Your task to perform on an android device: View the shopping cart on newegg. Add jbl charge 4 to the cart on newegg, then select checkout. Image 0: 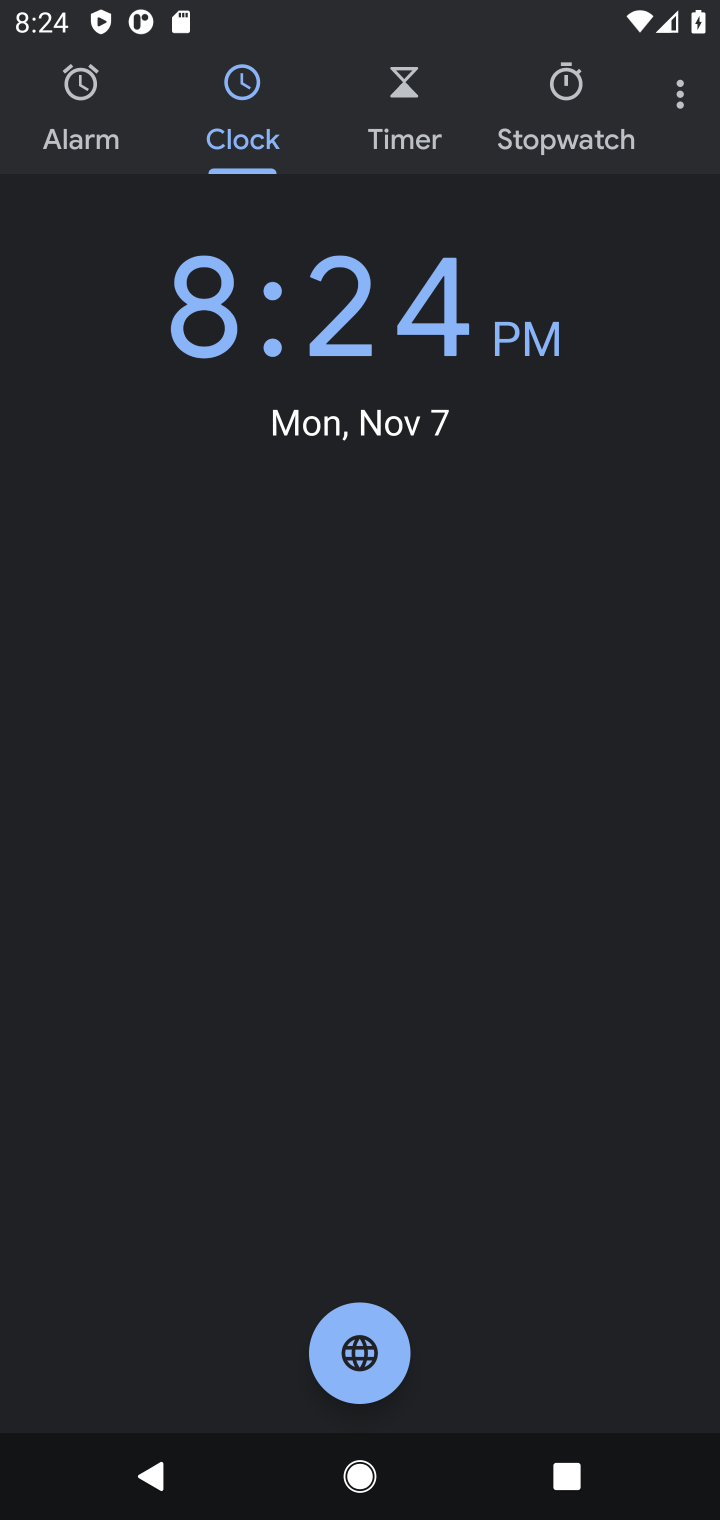
Step 0: press home button
Your task to perform on an android device: View the shopping cart on newegg. Add jbl charge 4 to the cart on newegg, then select checkout. Image 1: 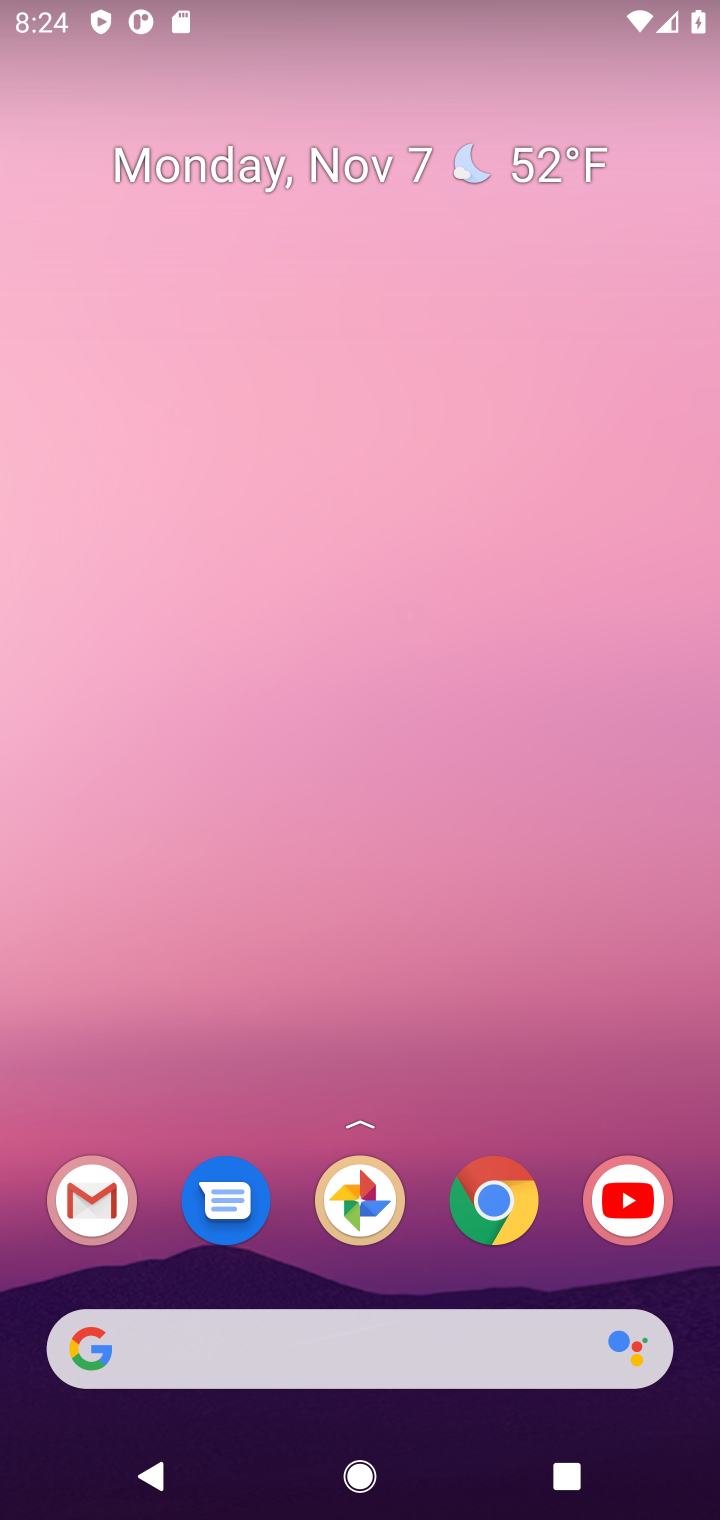
Step 1: click (505, 1202)
Your task to perform on an android device: View the shopping cart on newegg. Add jbl charge 4 to the cart on newegg, then select checkout. Image 2: 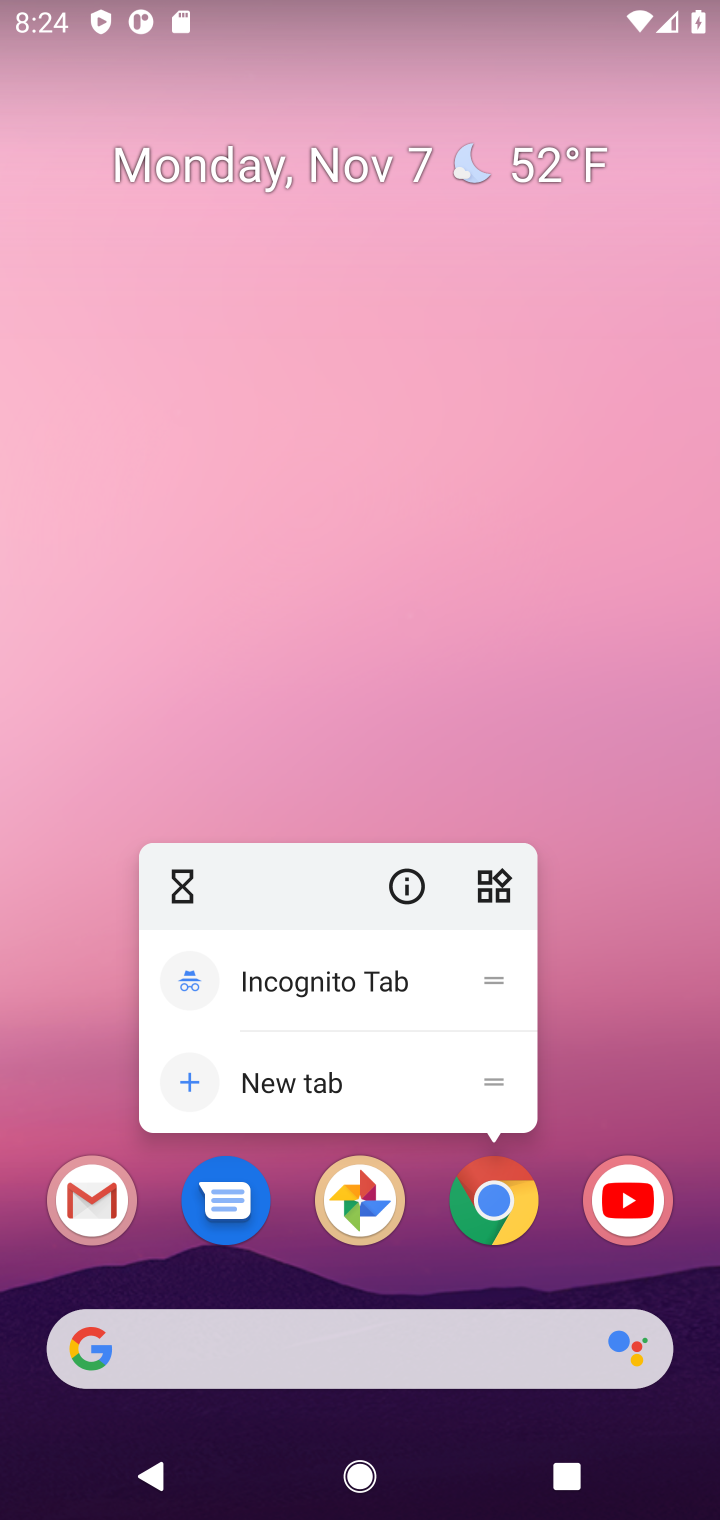
Step 2: click (505, 1202)
Your task to perform on an android device: View the shopping cart on newegg. Add jbl charge 4 to the cart on newegg, then select checkout. Image 3: 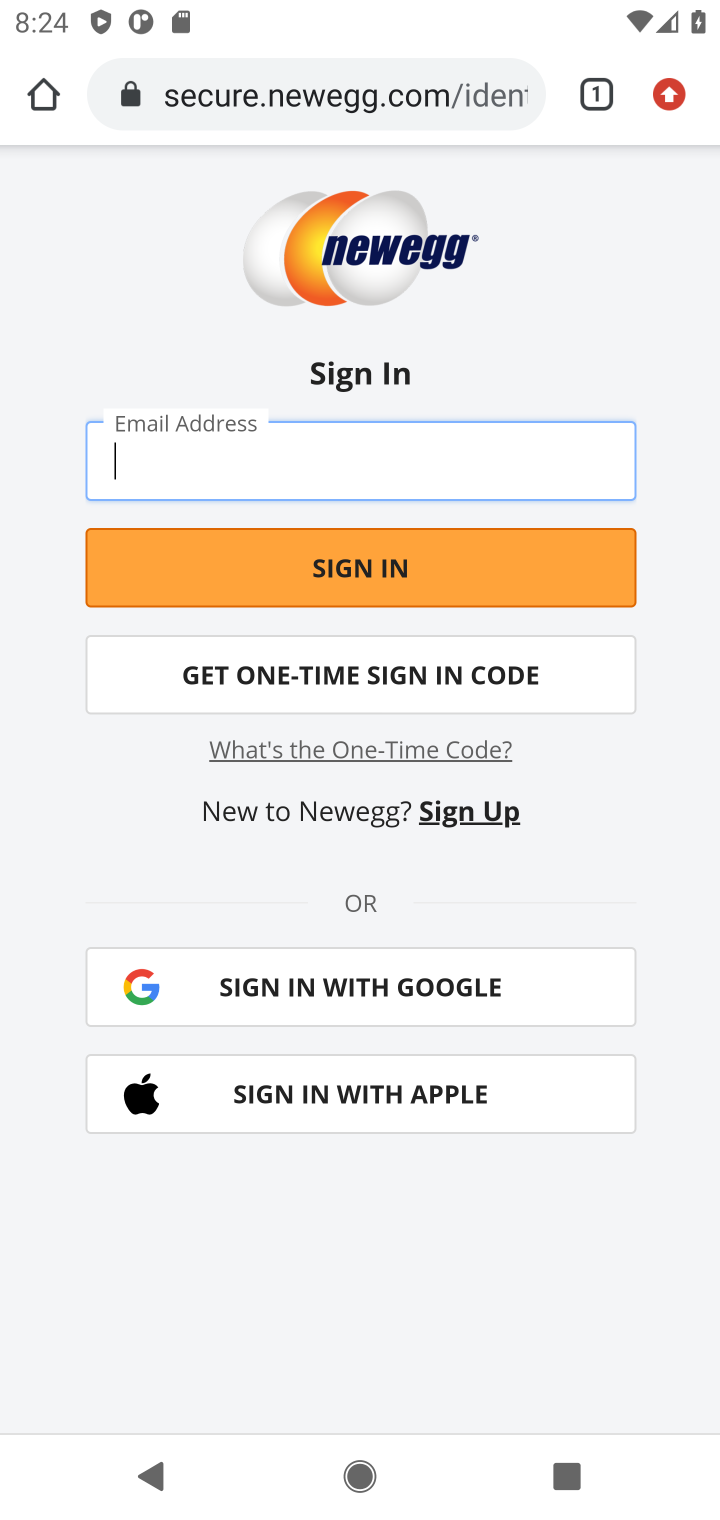
Step 3: click (281, 92)
Your task to perform on an android device: View the shopping cart on newegg. Add jbl charge 4 to the cart on newegg, then select checkout. Image 4: 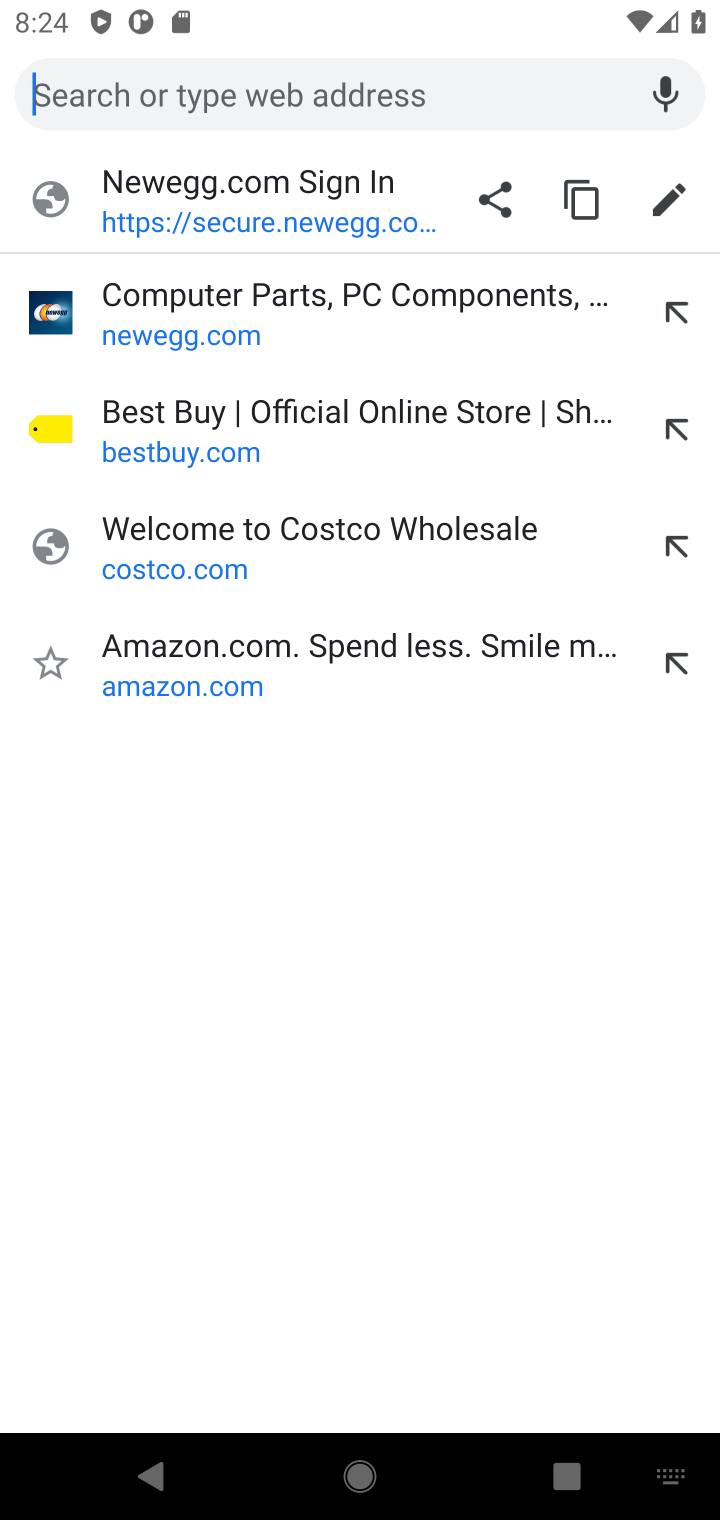
Step 4: type "newegg"
Your task to perform on an android device: View the shopping cart on newegg. Add jbl charge 4 to the cart on newegg, then select checkout. Image 5: 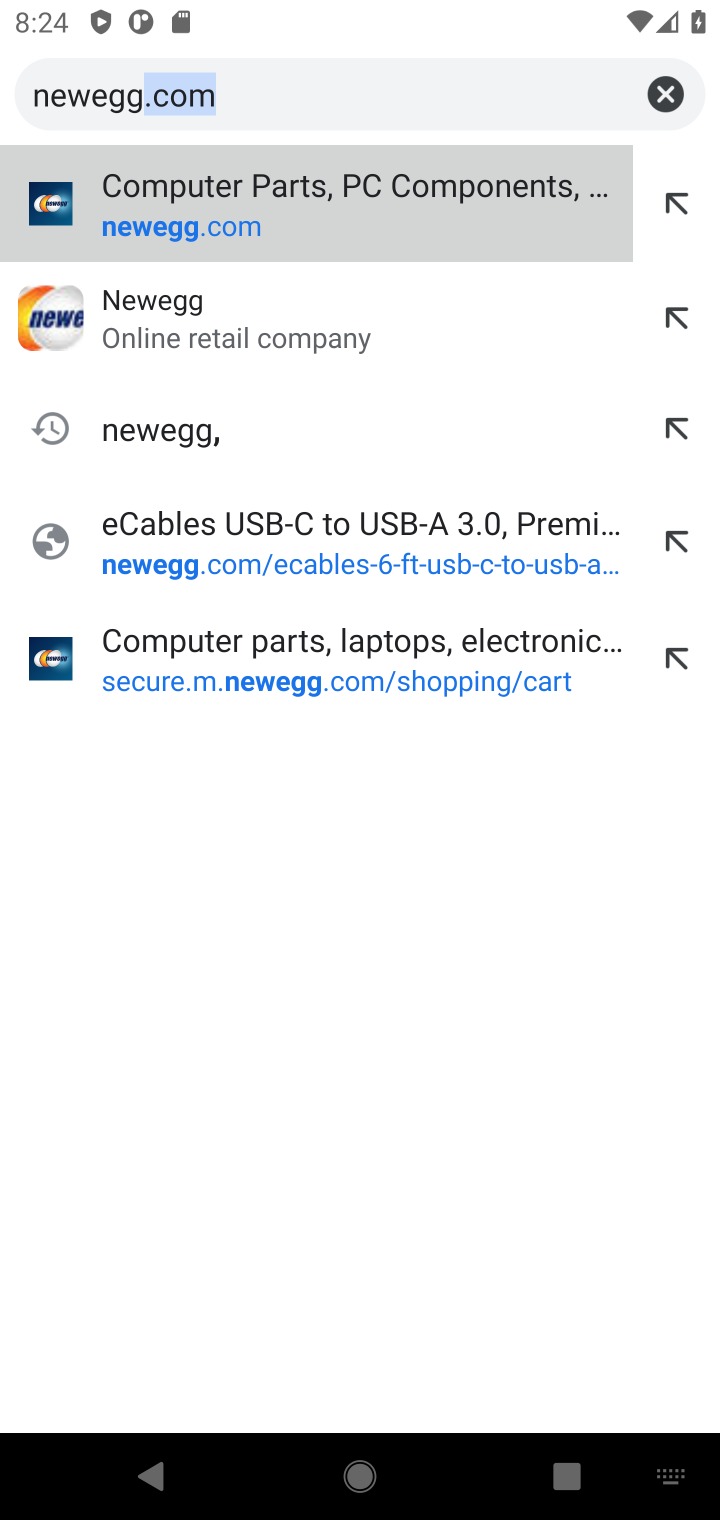
Step 5: press enter
Your task to perform on an android device: View the shopping cart on newegg. Add jbl charge 4 to the cart on newegg, then select checkout. Image 6: 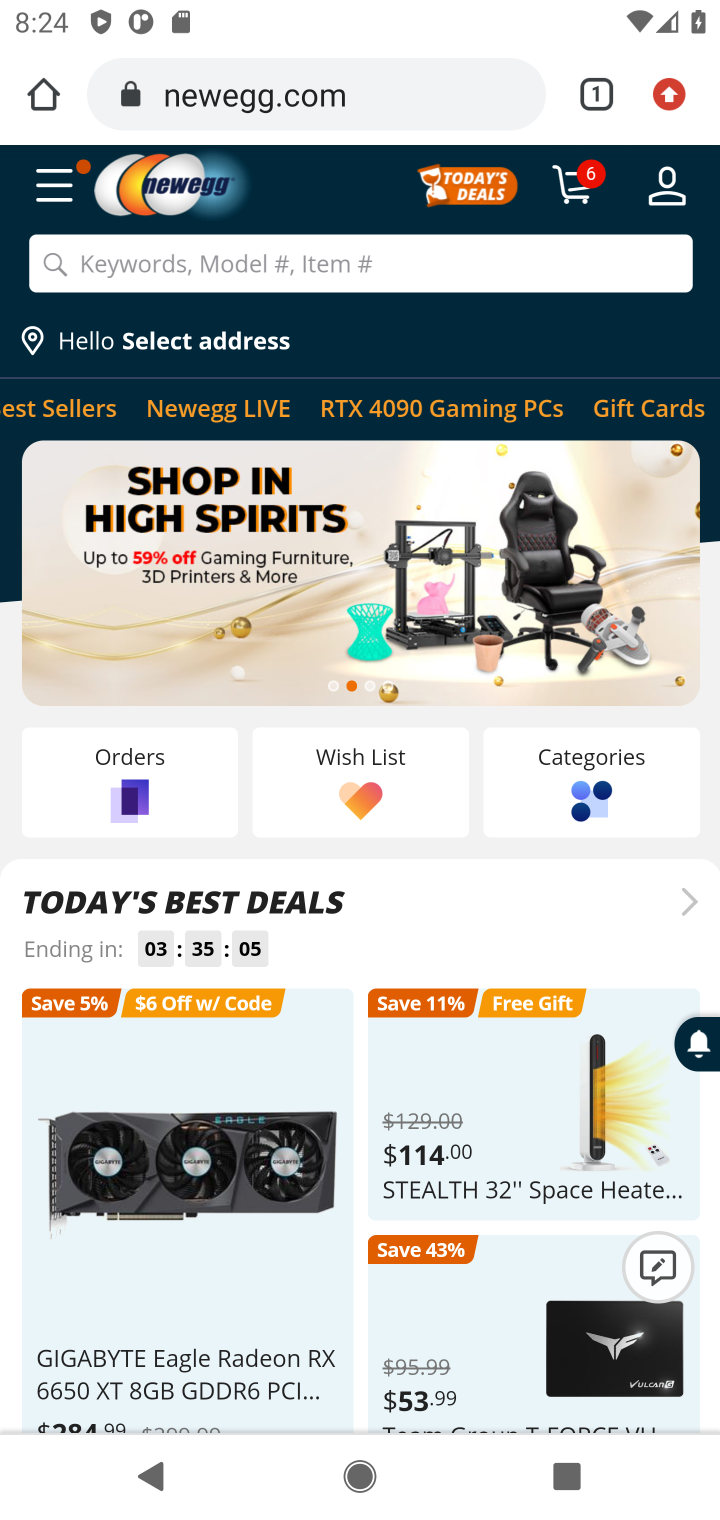
Step 6: click (582, 221)
Your task to perform on an android device: View the shopping cart on newegg. Add jbl charge 4 to the cart on newegg, then select checkout. Image 7: 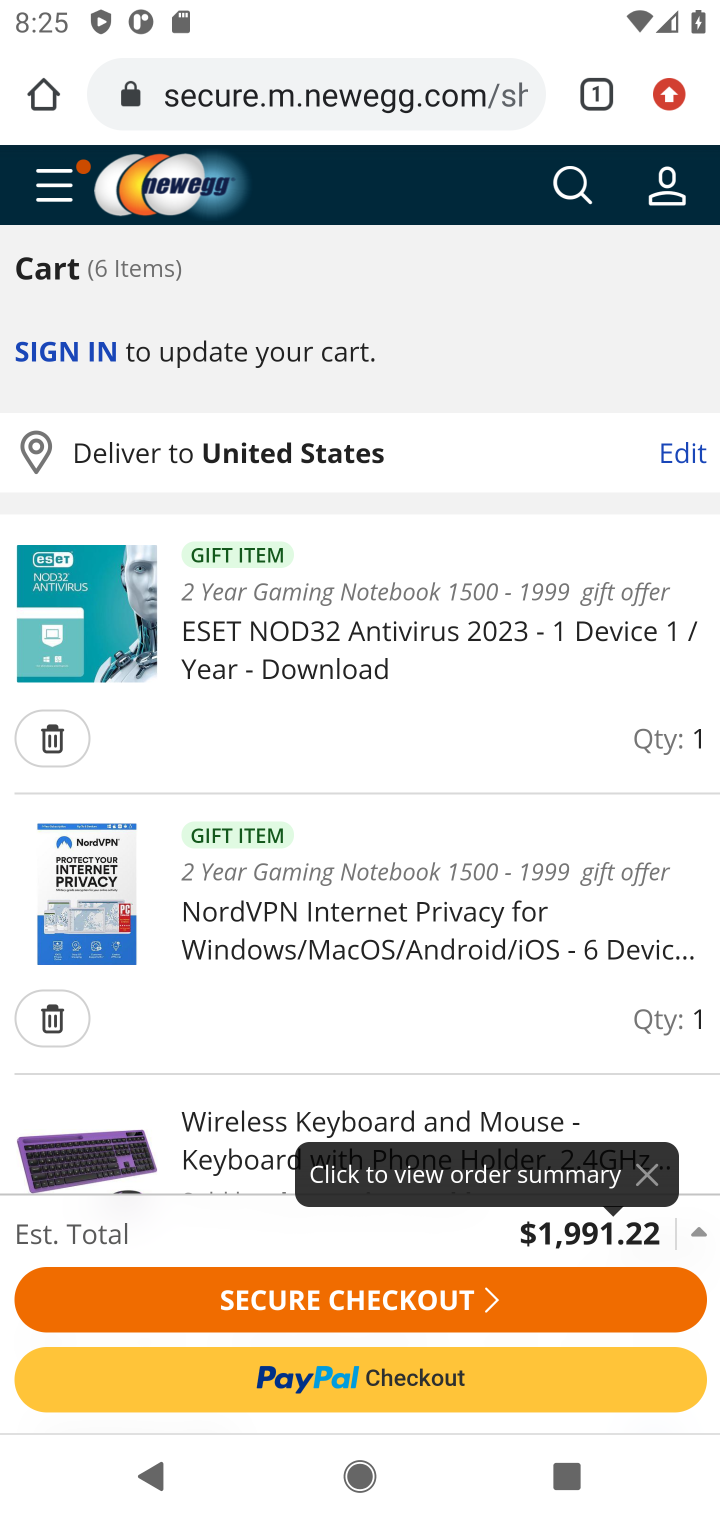
Step 7: click (555, 209)
Your task to perform on an android device: View the shopping cart on newegg. Add jbl charge 4 to the cart on newegg, then select checkout. Image 8: 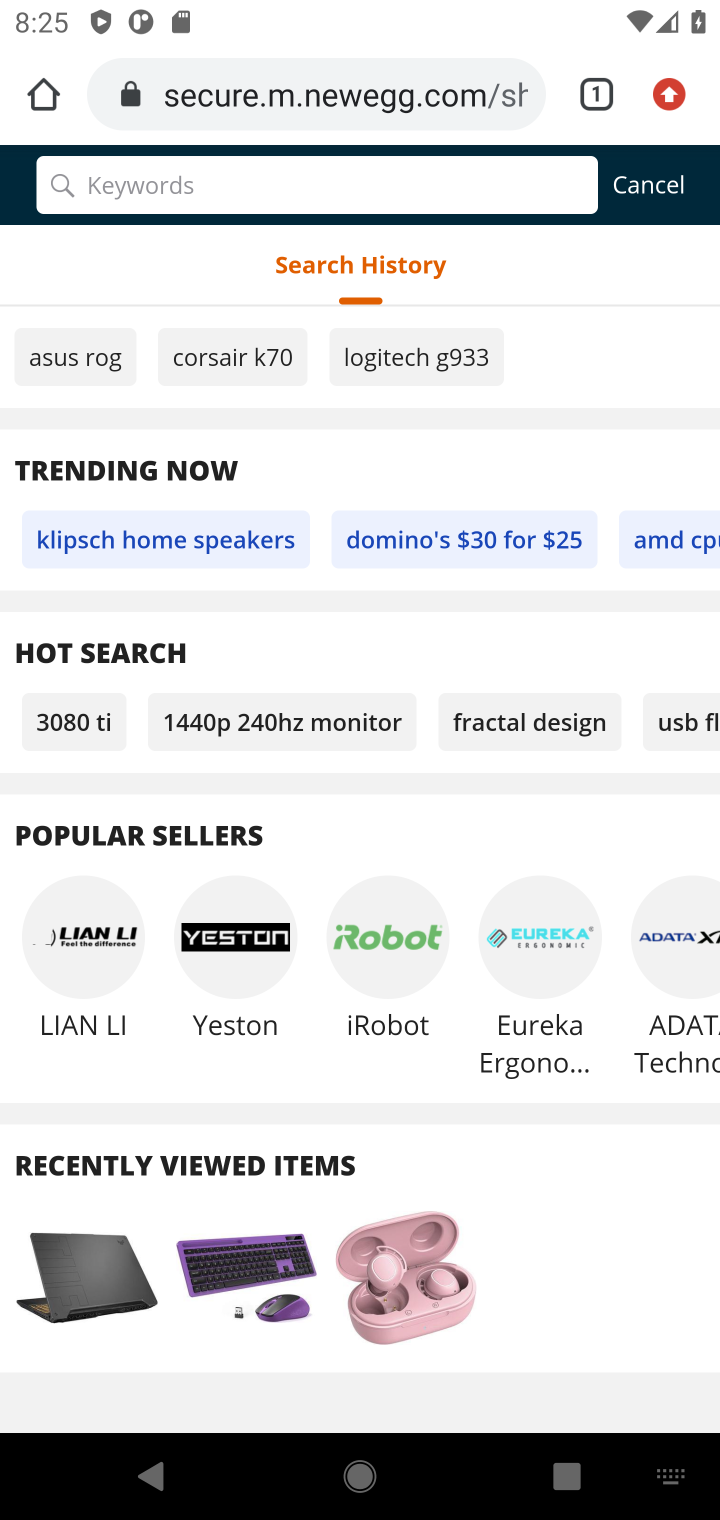
Step 8: click (372, 197)
Your task to perform on an android device: View the shopping cart on newegg. Add jbl charge 4 to the cart on newegg, then select checkout. Image 9: 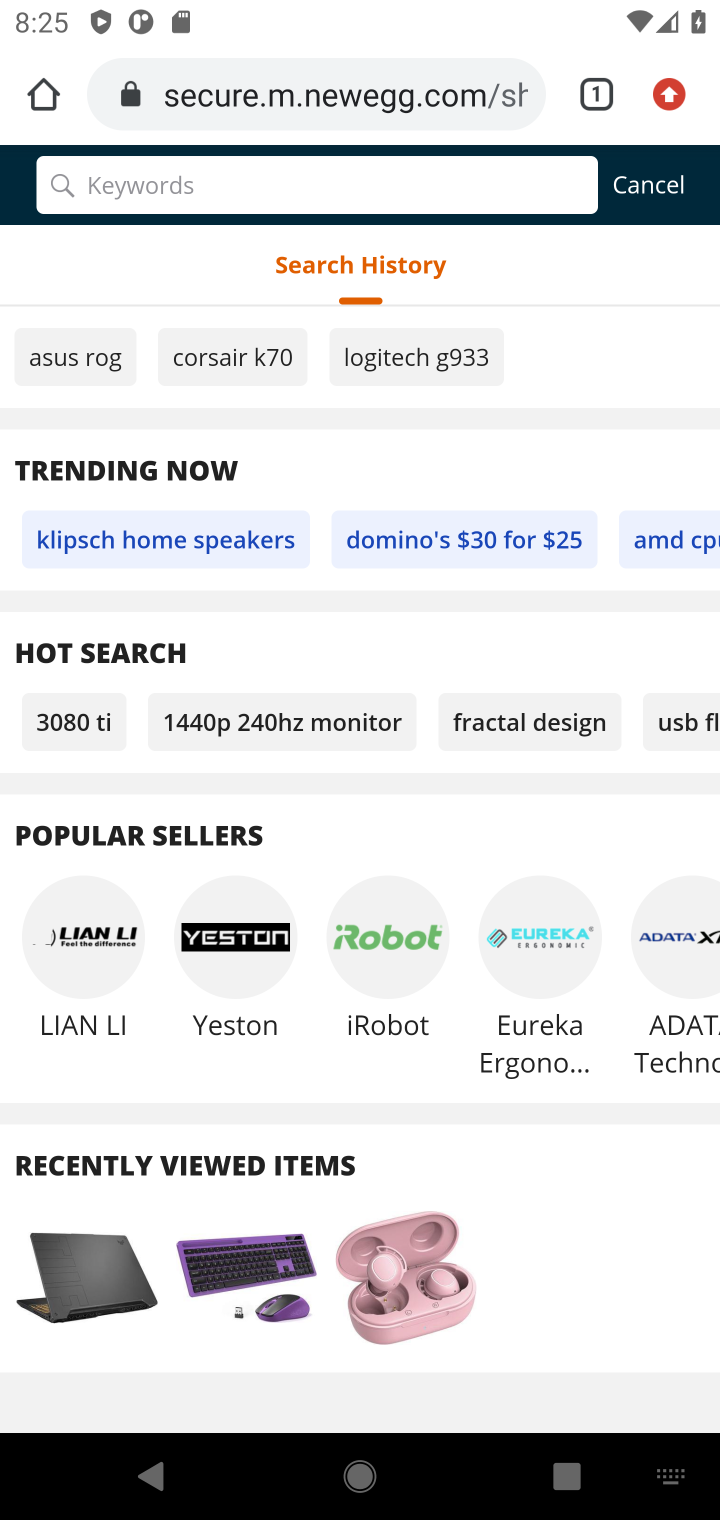
Step 9: type "jbl charge 4"
Your task to perform on an android device: View the shopping cart on newegg. Add jbl charge 4 to the cart on newegg, then select checkout. Image 10: 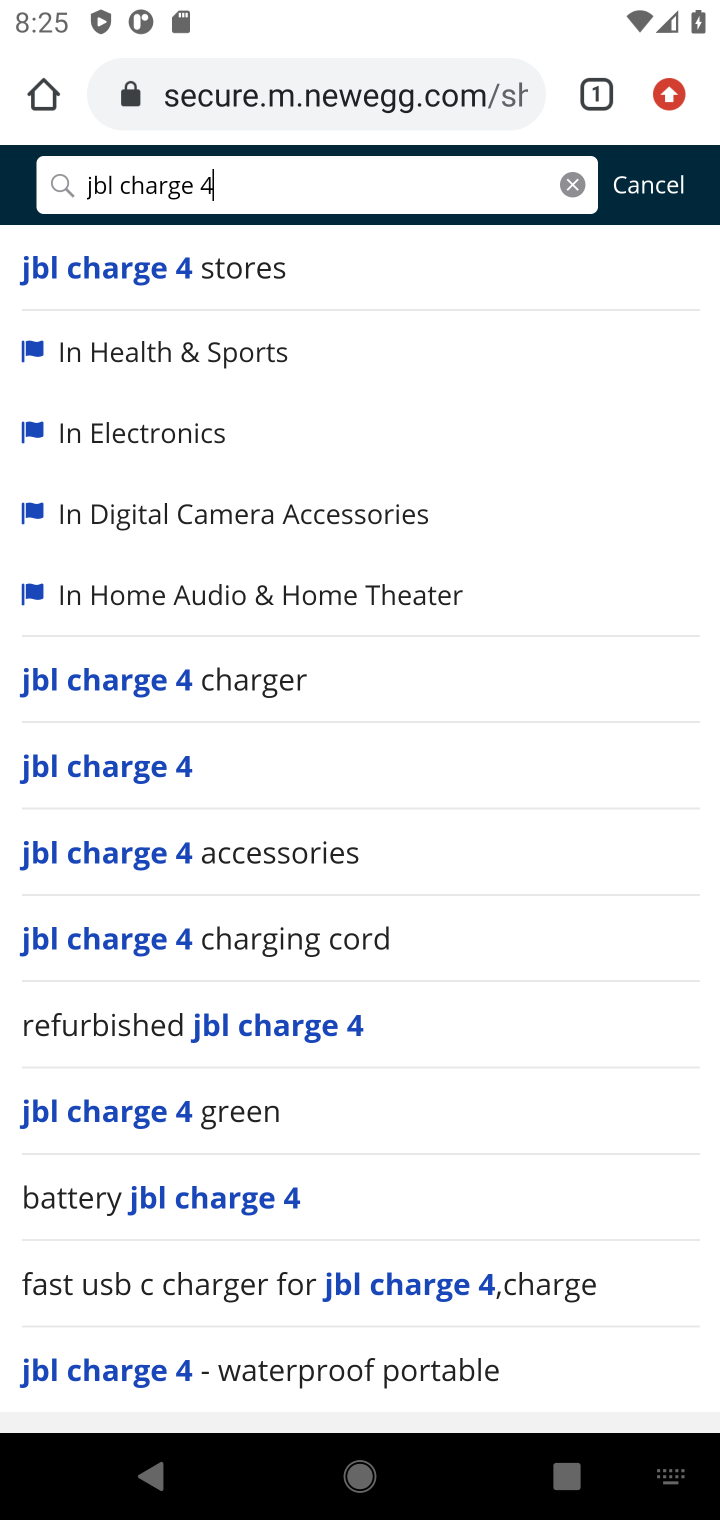
Step 10: press enter
Your task to perform on an android device: View the shopping cart on newegg. Add jbl charge 4 to the cart on newegg, then select checkout. Image 11: 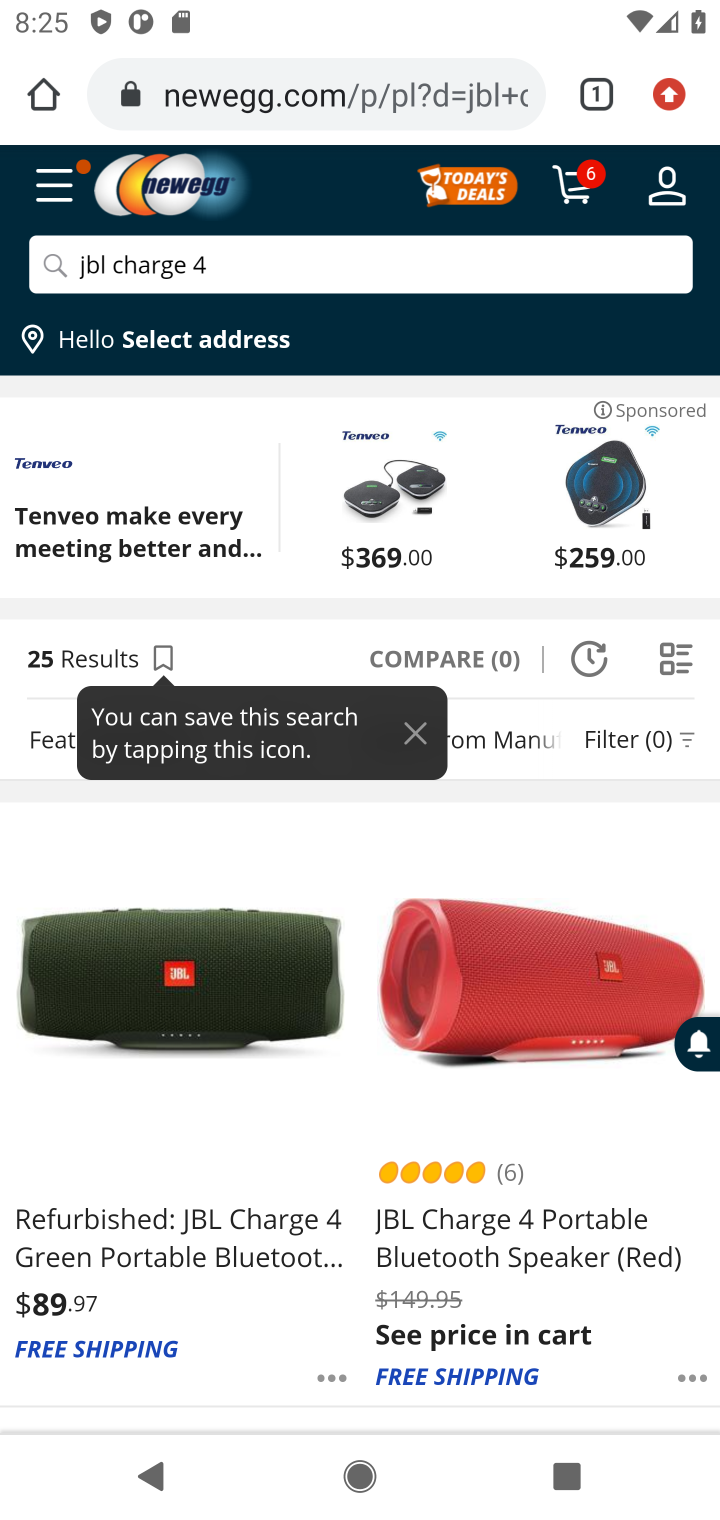
Step 11: click (213, 1233)
Your task to perform on an android device: View the shopping cart on newegg. Add jbl charge 4 to the cart on newegg, then select checkout. Image 12: 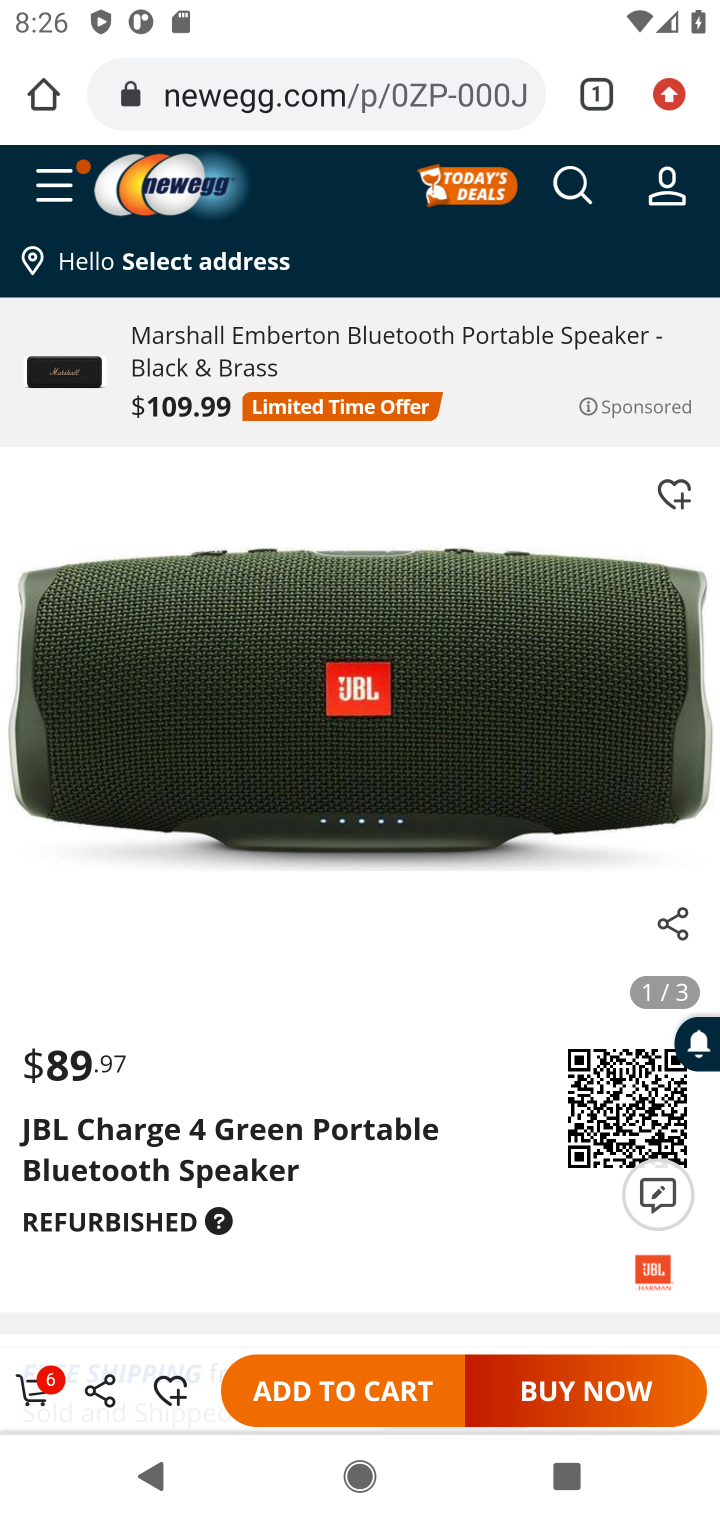
Step 12: click (357, 1389)
Your task to perform on an android device: View the shopping cart on newegg. Add jbl charge 4 to the cart on newegg, then select checkout. Image 13: 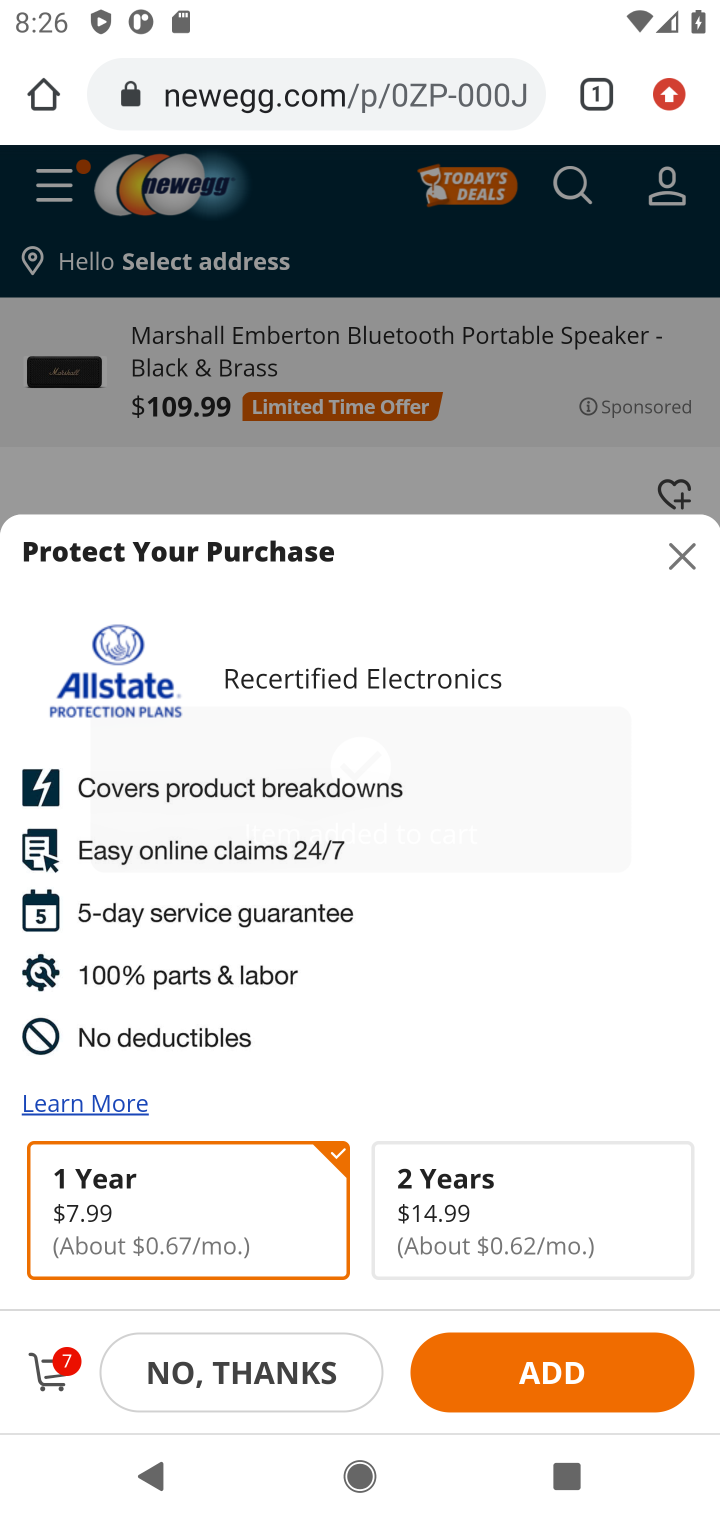
Step 13: click (509, 1380)
Your task to perform on an android device: View the shopping cart on newegg. Add jbl charge 4 to the cart on newegg, then select checkout. Image 14: 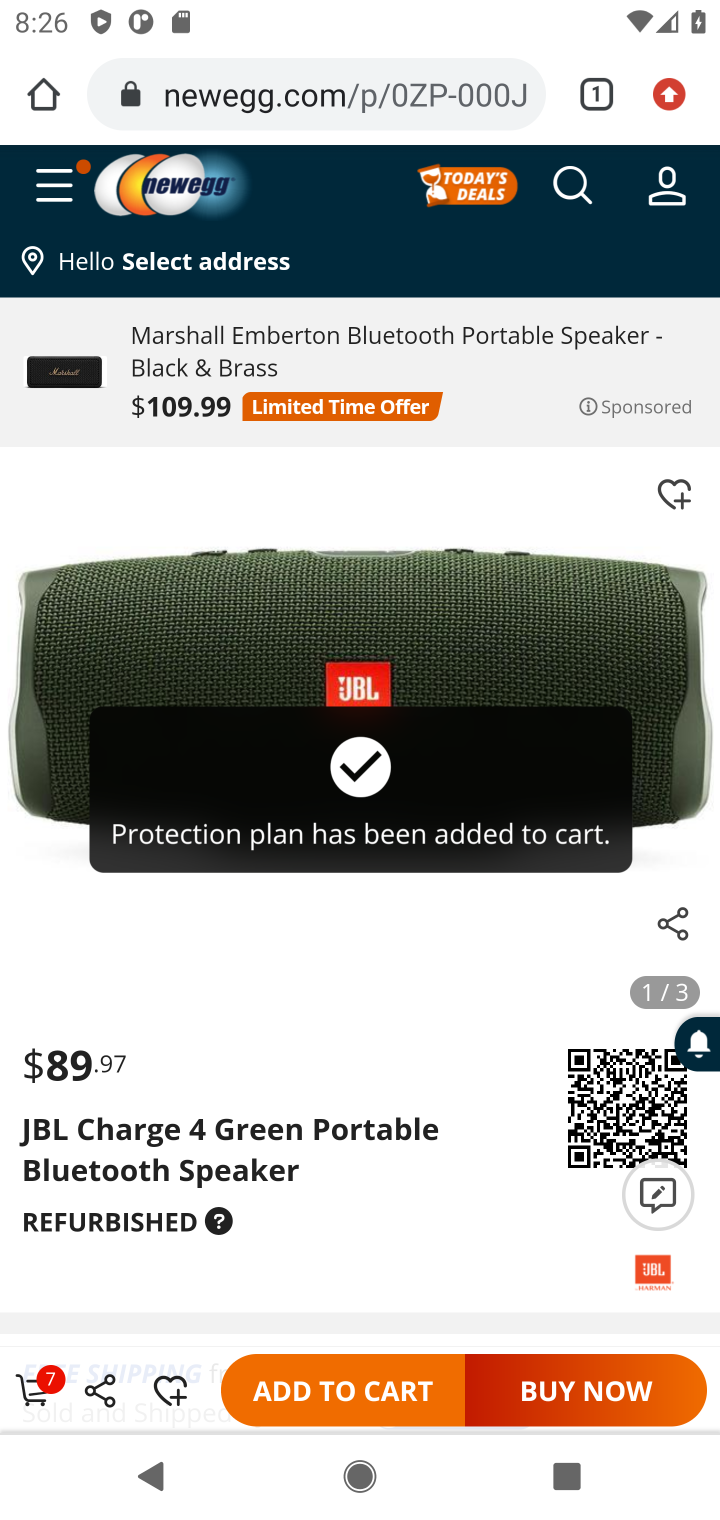
Step 14: click (45, 190)
Your task to perform on an android device: View the shopping cart on newegg. Add jbl charge 4 to the cart on newegg, then select checkout. Image 15: 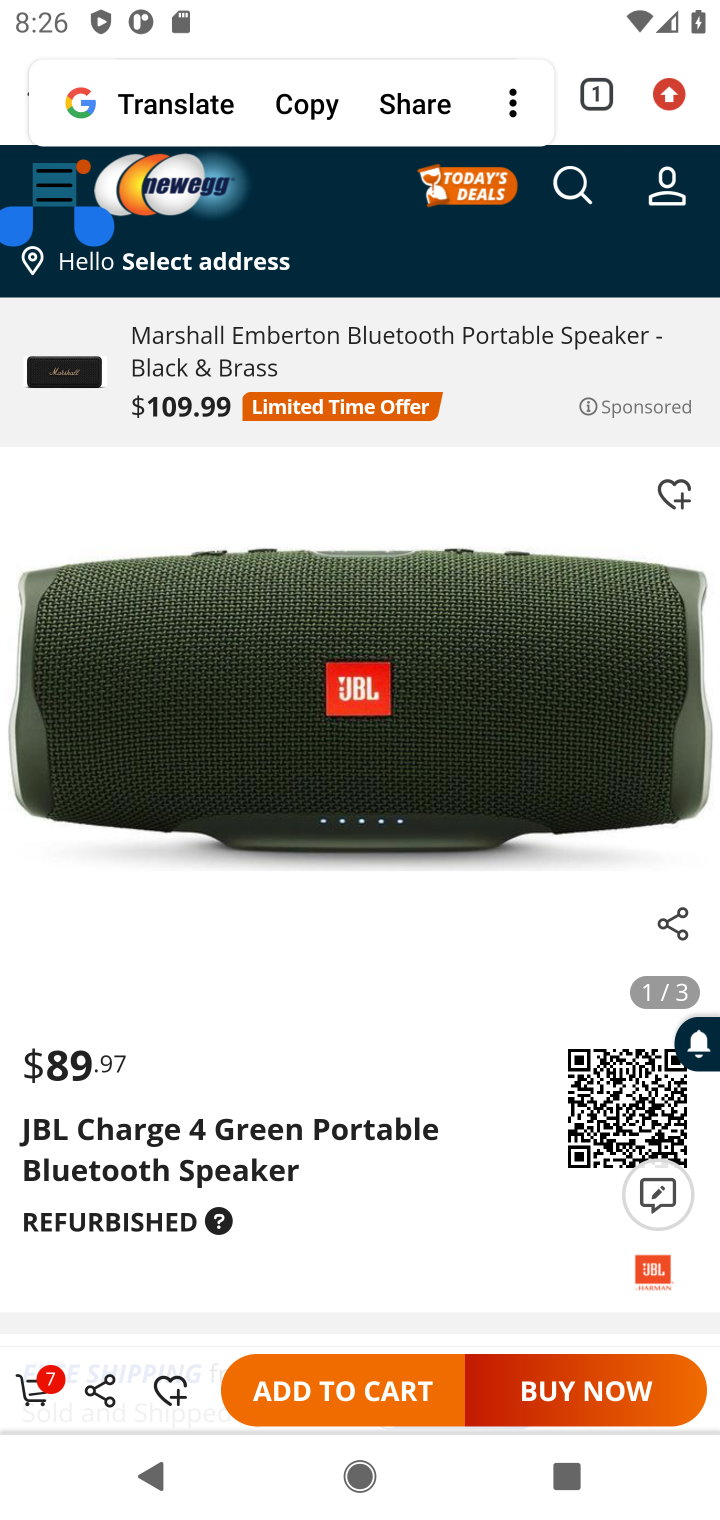
Step 15: click (68, 199)
Your task to perform on an android device: View the shopping cart on newegg. Add jbl charge 4 to the cart on newegg, then select checkout. Image 16: 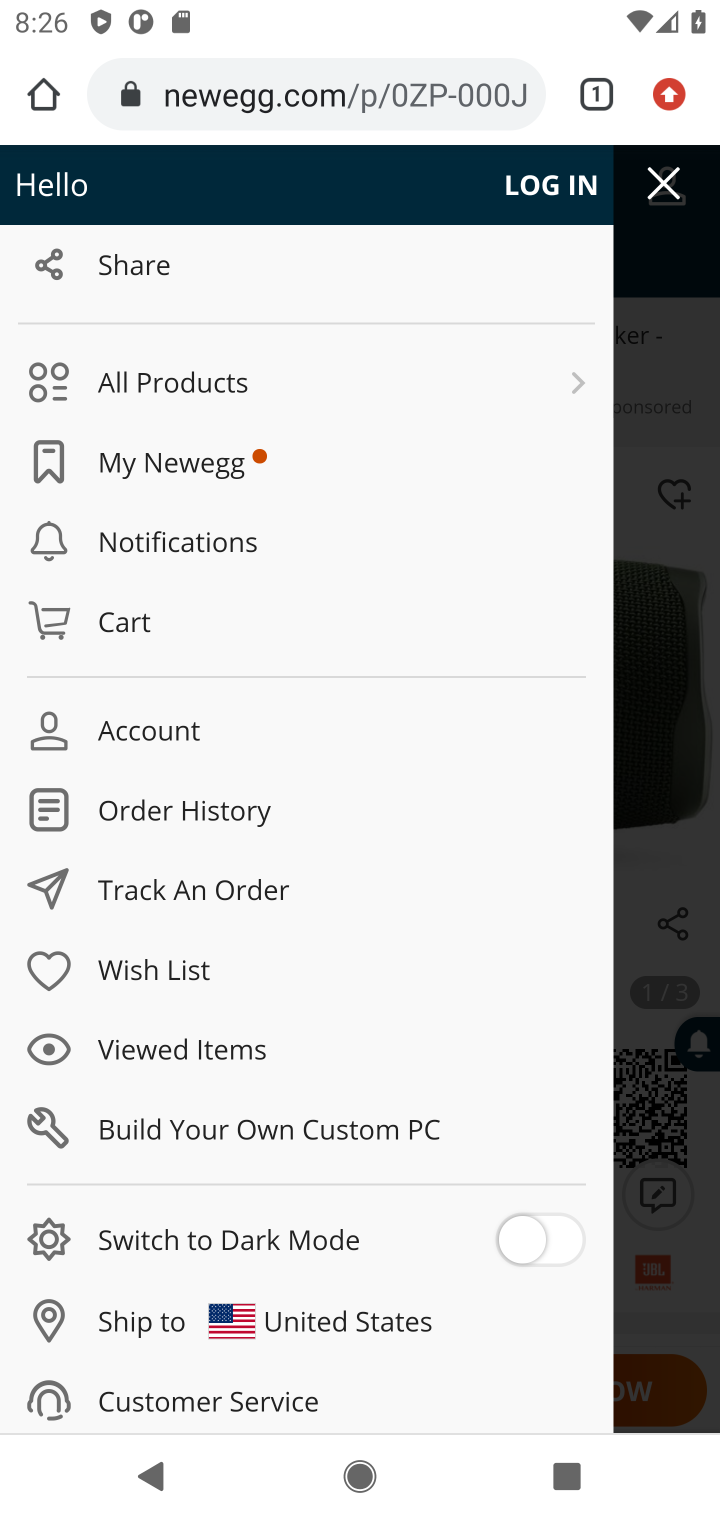
Step 16: click (104, 626)
Your task to perform on an android device: View the shopping cart on newegg. Add jbl charge 4 to the cart on newegg, then select checkout. Image 17: 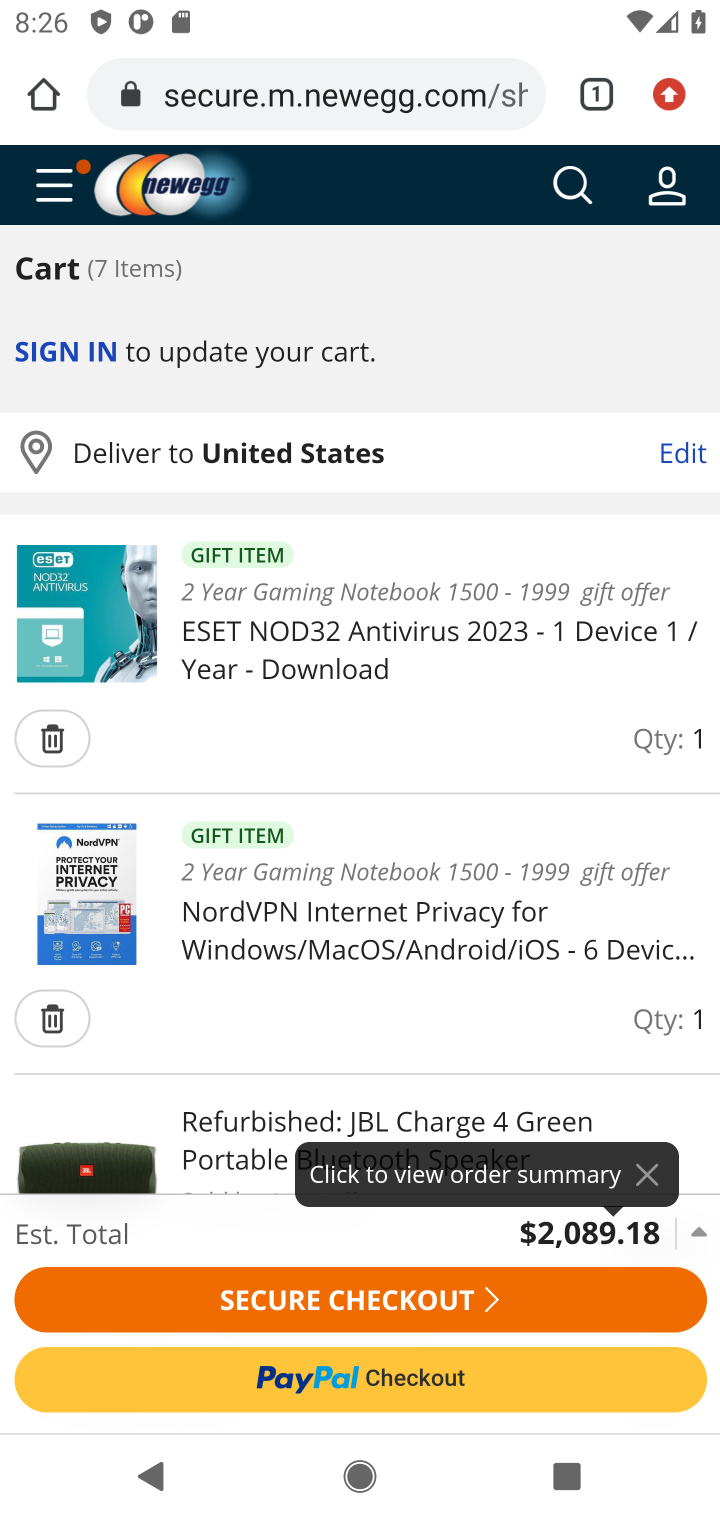
Step 17: click (412, 1310)
Your task to perform on an android device: View the shopping cart on newegg. Add jbl charge 4 to the cart on newegg, then select checkout. Image 18: 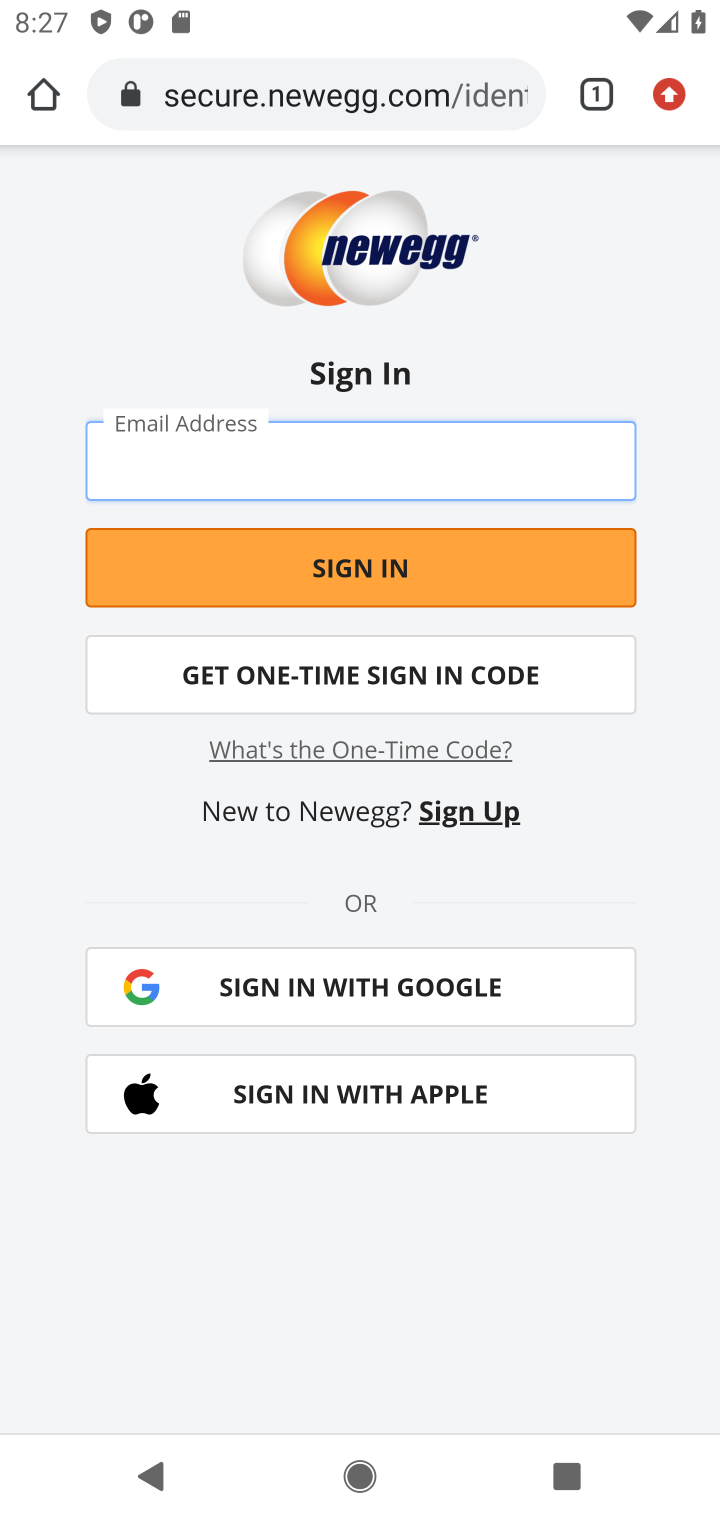
Step 18: task complete